Your task to perform on an android device: turn on improve location accuracy Image 0: 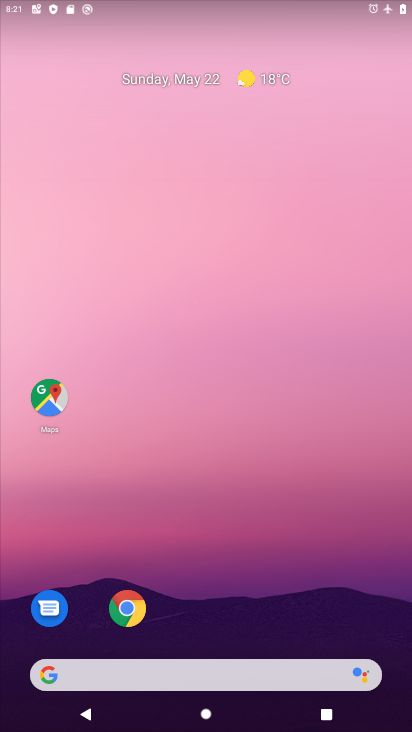
Step 0: drag from (227, 712) to (234, 155)
Your task to perform on an android device: turn on improve location accuracy Image 1: 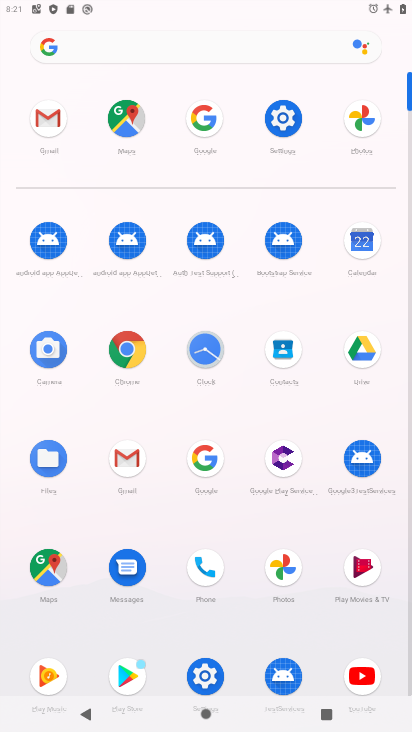
Step 1: click (282, 122)
Your task to perform on an android device: turn on improve location accuracy Image 2: 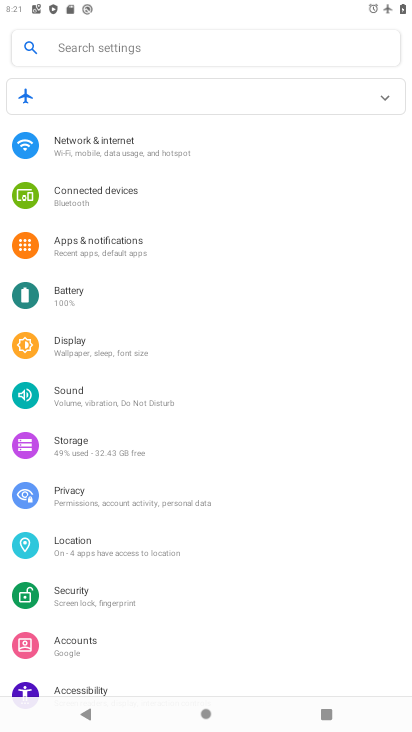
Step 2: click (73, 546)
Your task to perform on an android device: turn on improve location accuracy Image 3: 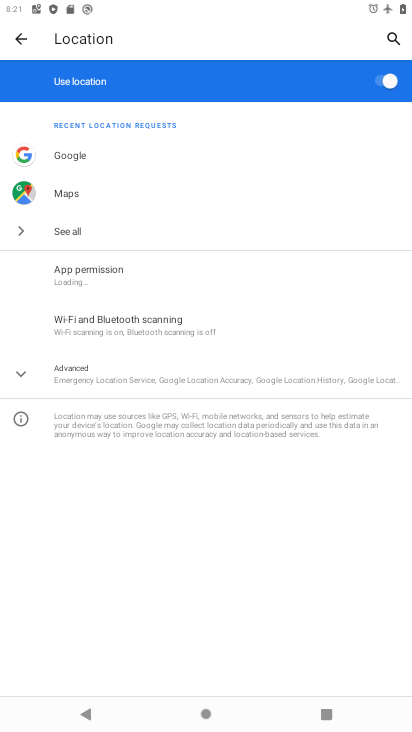
Step 3: click (79, 370)
Your task to perform on an android device: turn on improve location accuracy Image 4: 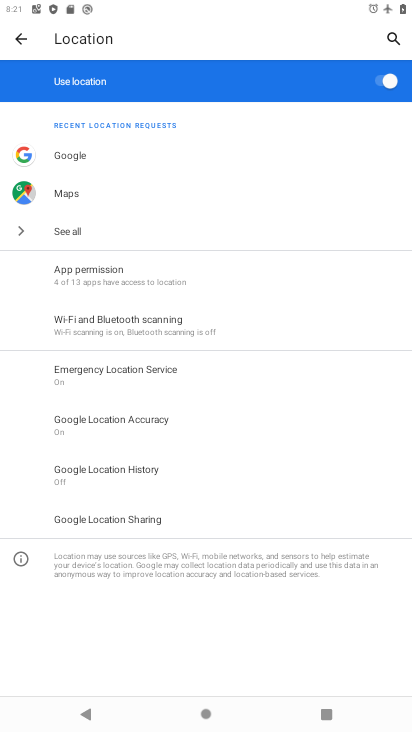
Step 4: click (116, 417)
Your task to perform on an android device: turn on improve location accuracy Image 5: 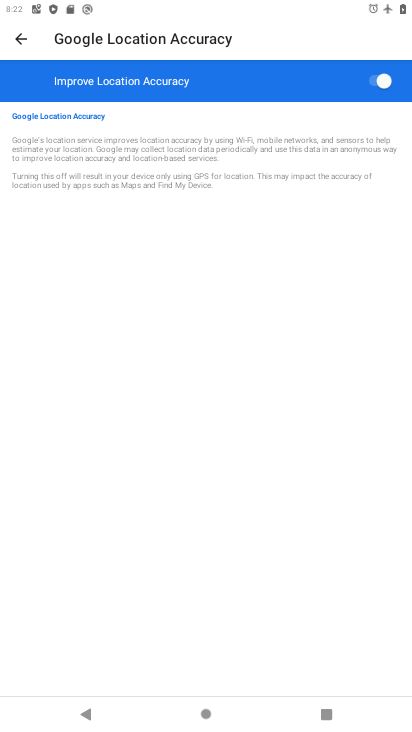
Step 5: task complete